Your task to perform on an android device: open app "TextNow: Call + Text Unlimited" (install if not already installed) Image 0: 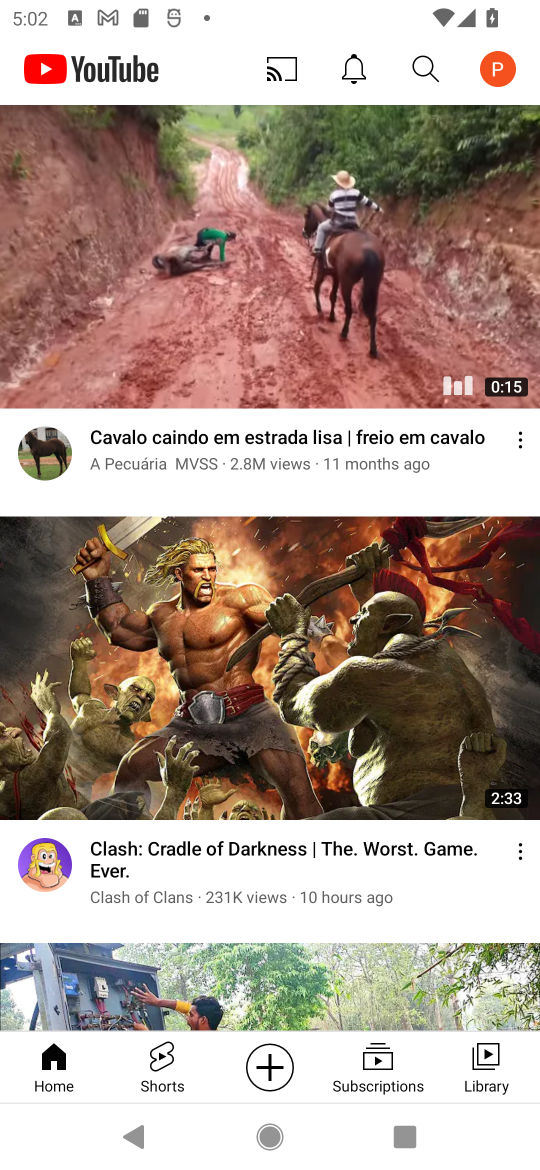
Step 0: press home button
Your task to perform on an android device: open app "TextNow: Call + Text Unlimited" (install if not already installed) Image 1: 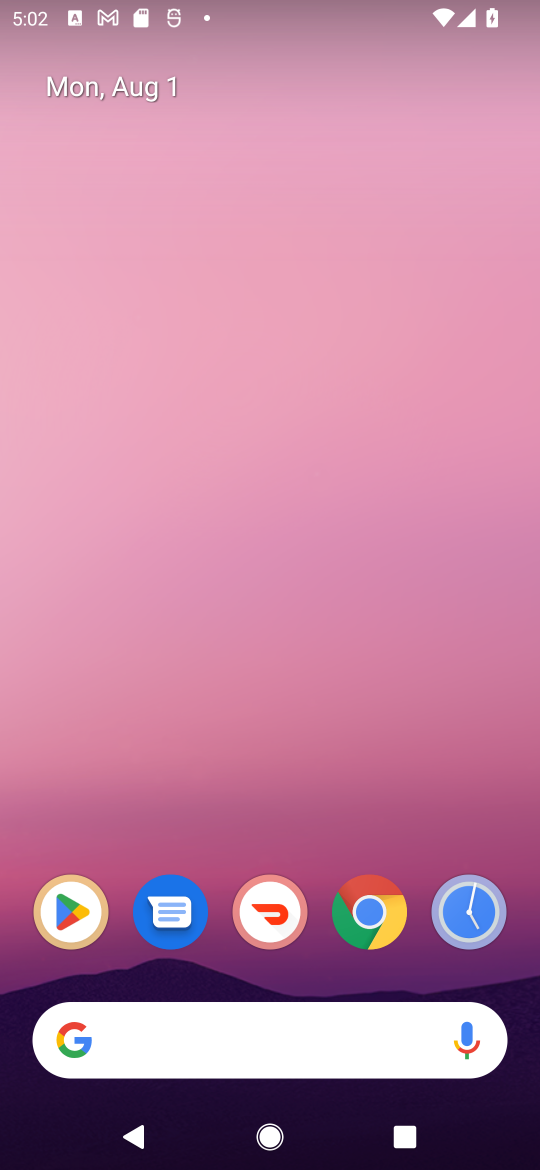
Step 1: click (80, 917)
Your task to perform on an android device: open app "TextNow: Call + Text Unlimited" (install if not already installed) Image 2: 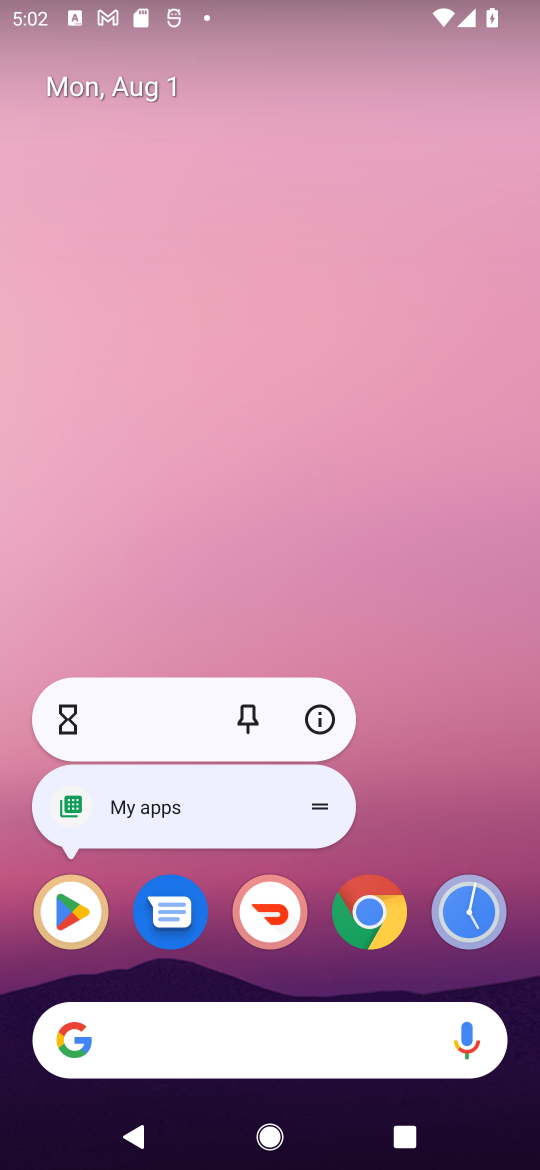
Step 2: click (80, 917)
Your task to perform on an android device: open app "TextNow: Call + Text Unlimited" (install if not already installed) Image 3: 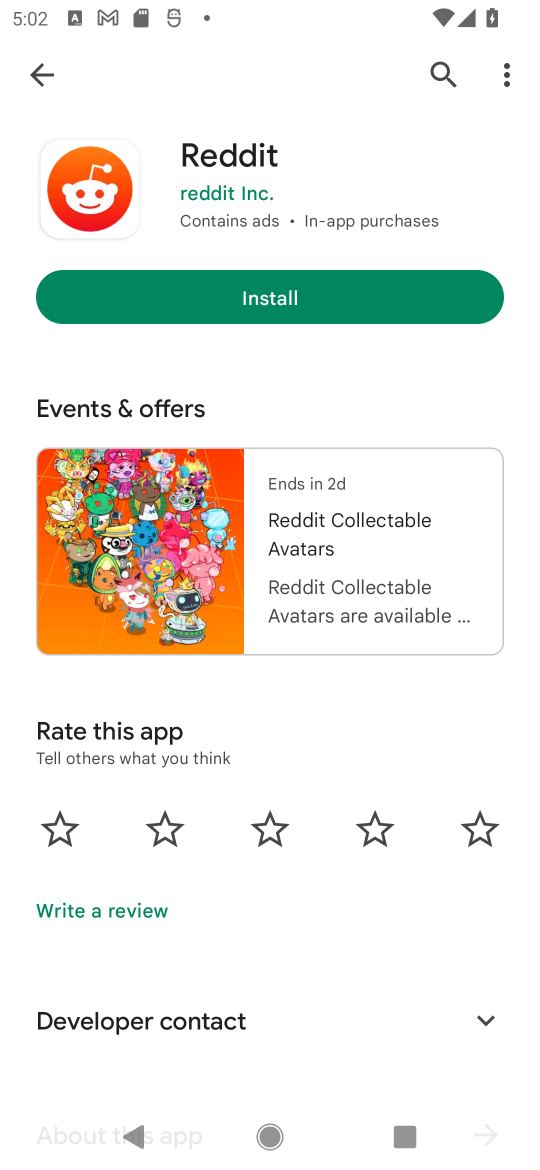
Step 3: click (442, 67)
Your task to perform on an android device: open app "TextNow: Call + Text Unlimited" (install if not already installed) Image 4: 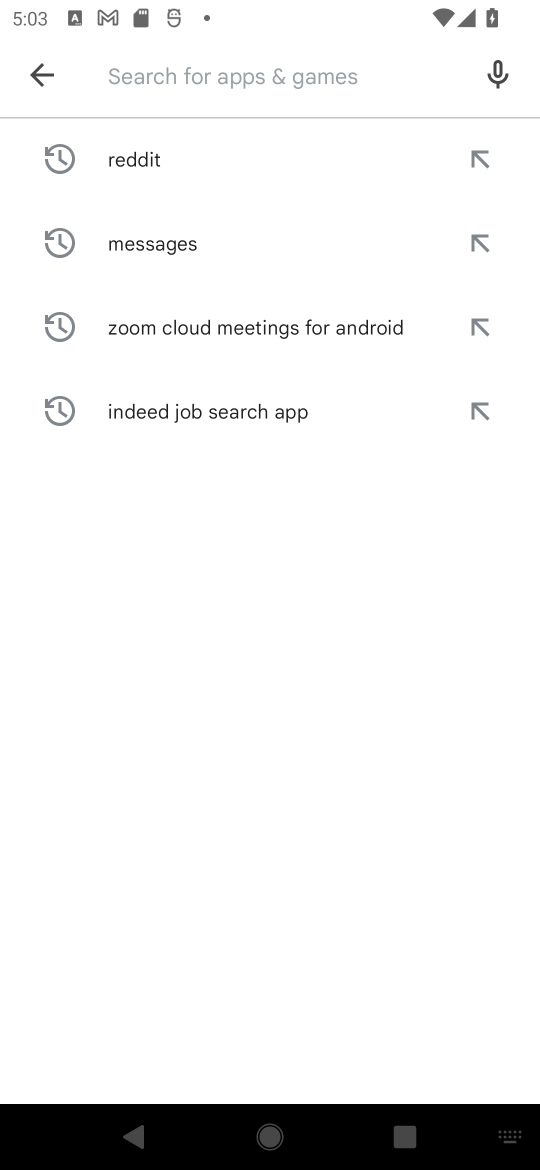
Step 4: type "TextNow: Call + Text Unlimited"
Your task to perform on an android device: open app "TextNow: Call + Text Unlimited" (install if not already installed) Image 5: 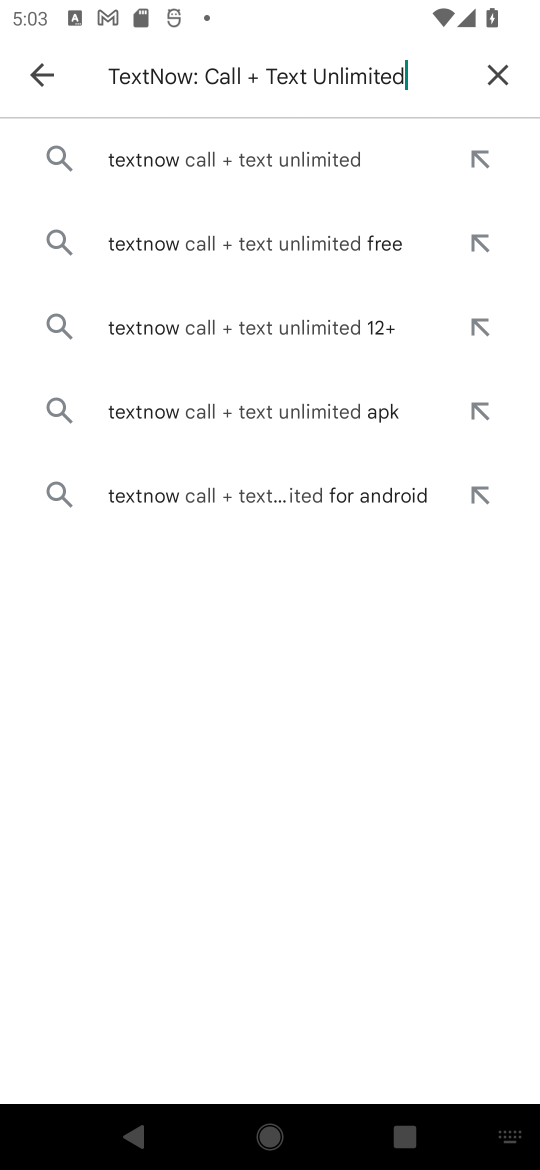
Step 5: click (259, 189)
Your task to perform on an android device: open app "TextNow: Call + Text Unlimited" (install if not already installed) Image 6: 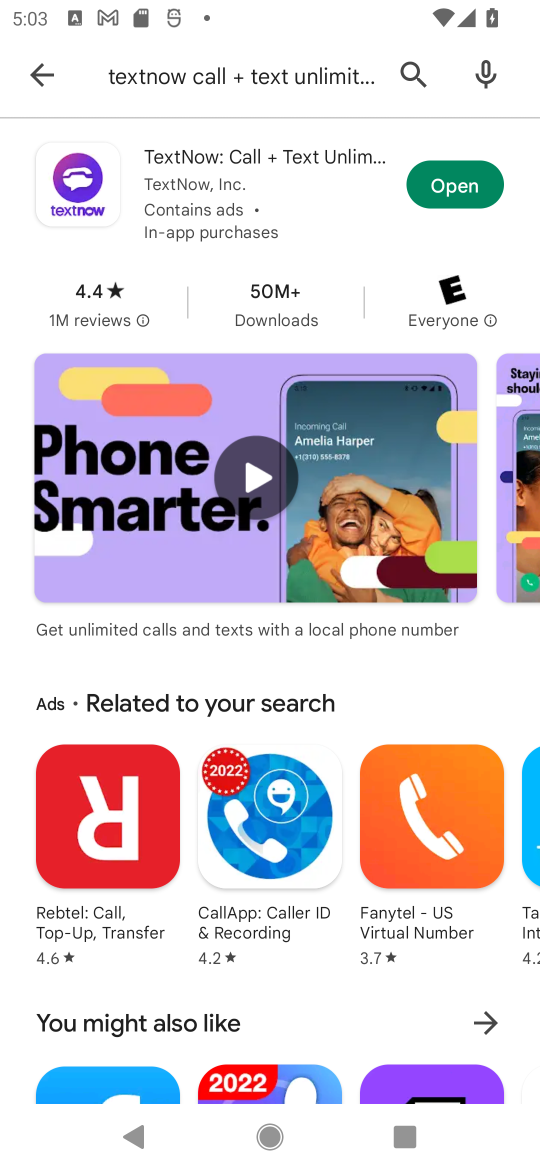
Step 6: click (441, 182)
Your task to perform on an android device: open app "TextNow: Call + Text Unlimited" (install if not already installed) Image 7: 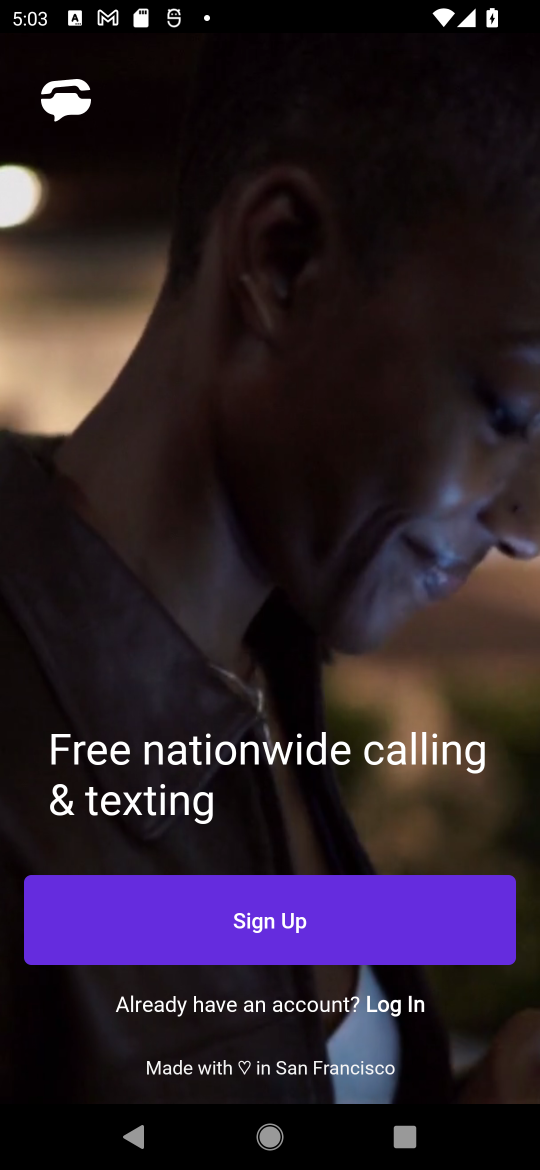
Step 7: task complete